Your task to perform on an android device: check out phone information Image 0: 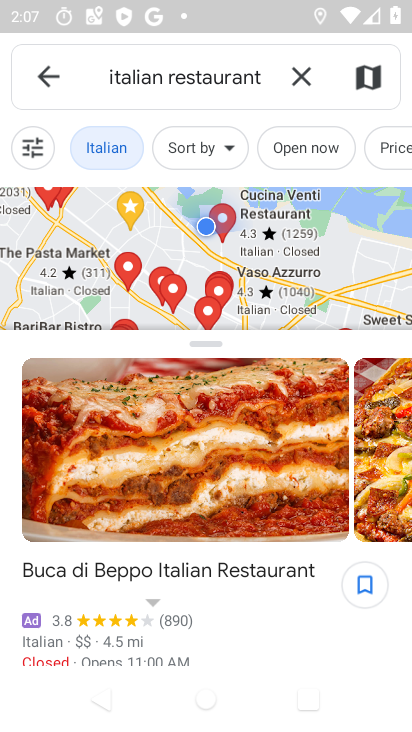
Step 0: press home button
Your task to perform on an android device: check out phone information Image 1: 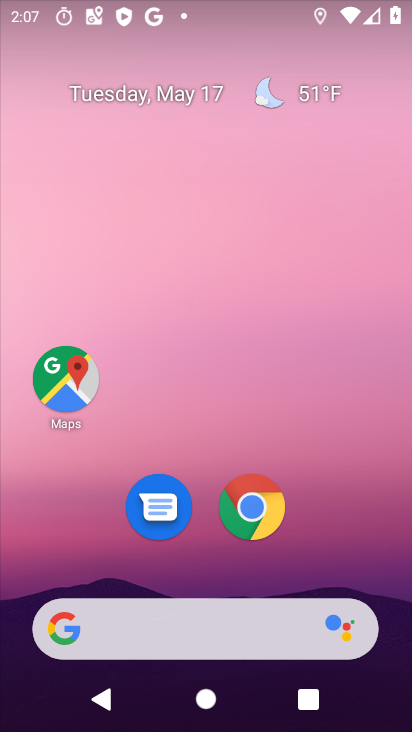
Step 1: drag from (192, 551) to (228, 122)
Your task to perform on an android device: check out phone information Image 2: 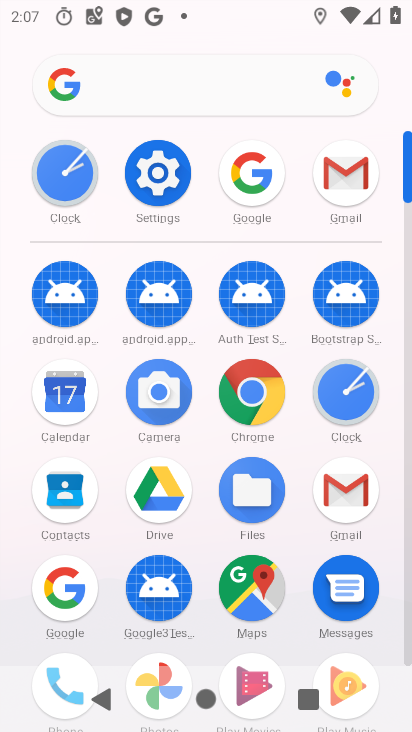
Step 2: click (161, 173)
Your task to perform on an android device: check out phone information Image 3: 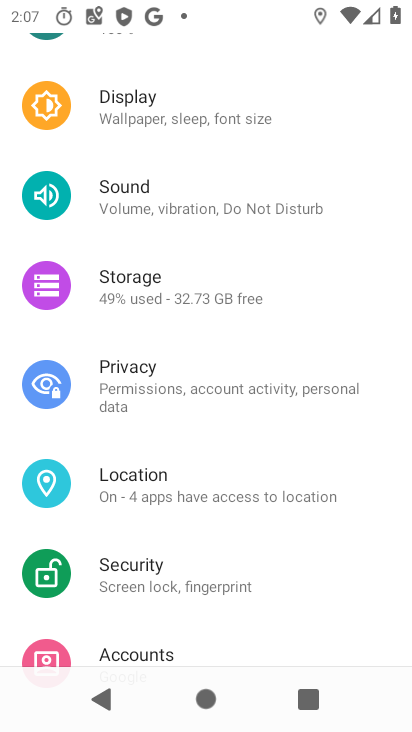
Step 3: drag from (240, 540) to (298, 56)
Your task to perform on an android device: check out phone information Image 4: 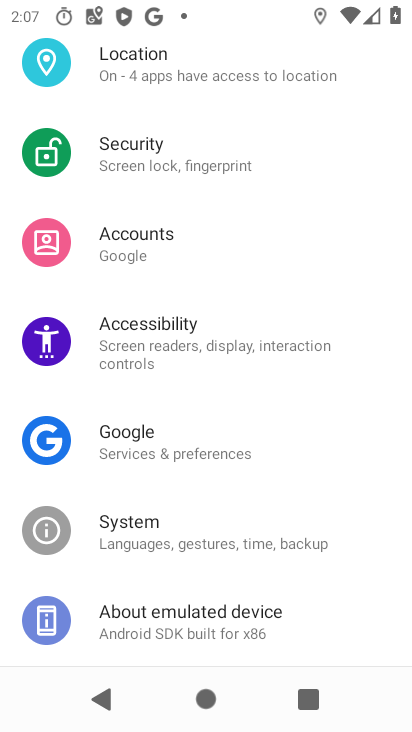
Step 4: drag from (272, 555) to (250, 110)
Your task to perform on an android device: check out phone information Image 5: 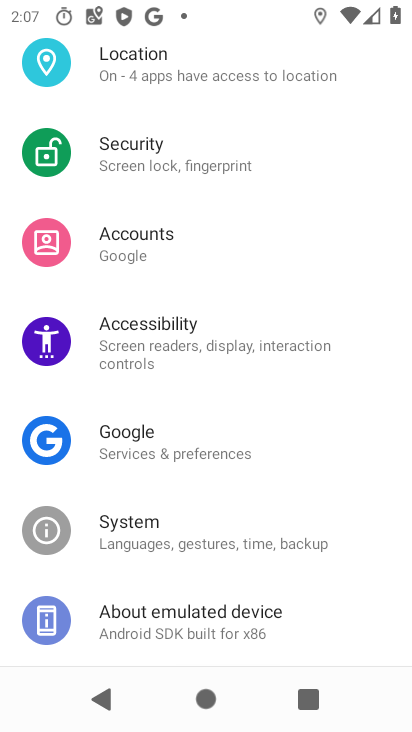
Step 5: click (166, 623)
Your task to perform on an android device: check out phone information Image 6: 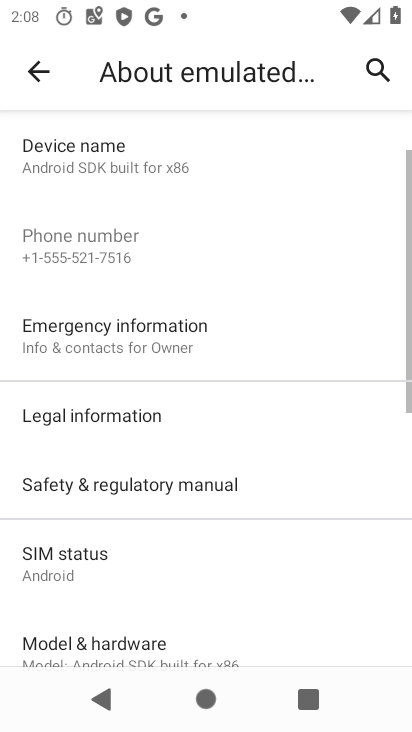
Step 6: task complete